Your task to perform on an android device: check google app version Image 0: 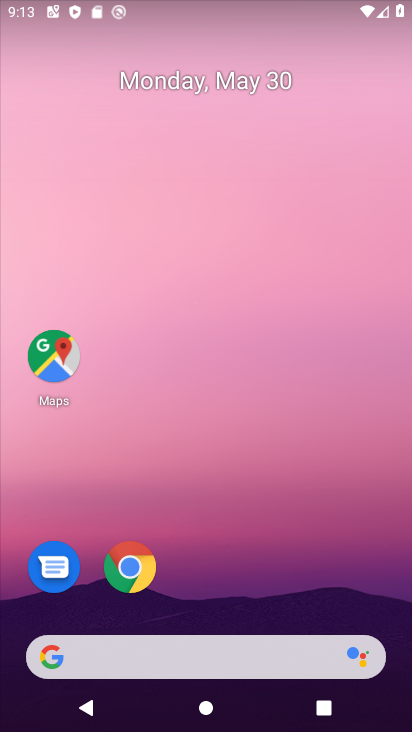
Step 0: click (147, 654)
Your task to perform on an android device: check google app version Image 1: 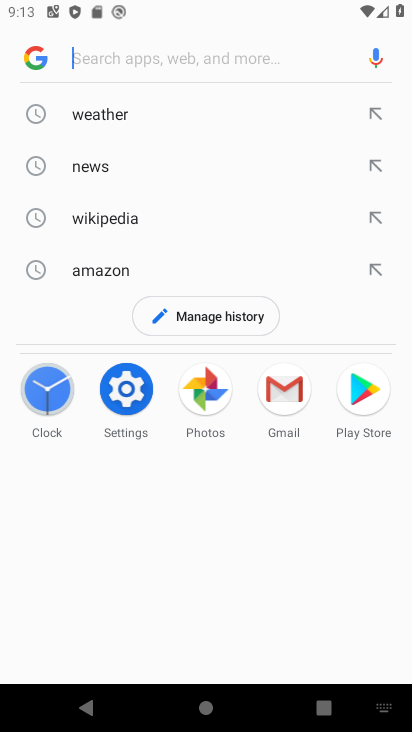
Step 1: click (45, 43)
Your task to perform on an android device: check google app version Image 2: 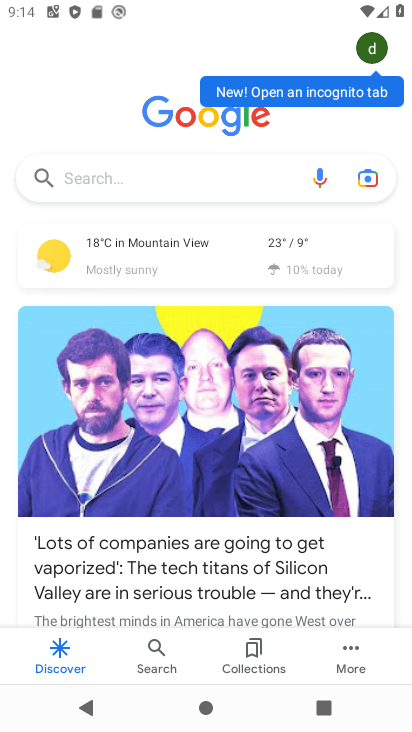
Step 2: click (369, 664)
Your task to perform on an android device: check google app version Image 3: 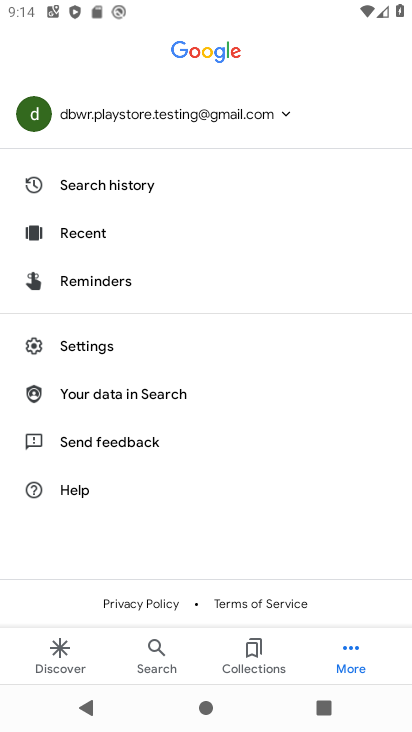
Step 3: click (92, 336)
Your task to perform on an android device: check google app version Image 4: 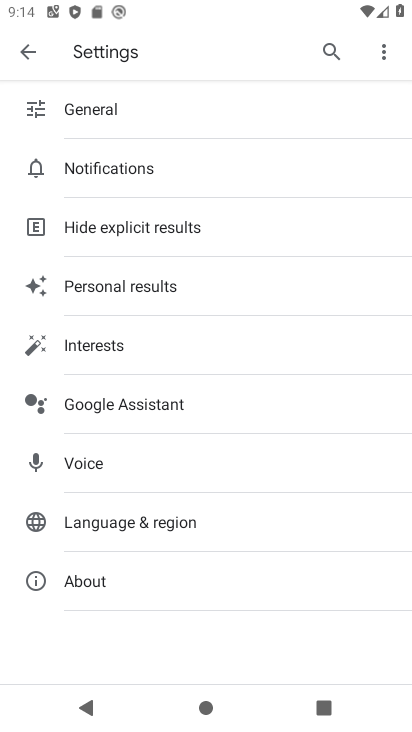
Step 4: click (75, 573)
Your task to perform on an android device: check google app version Image 5: 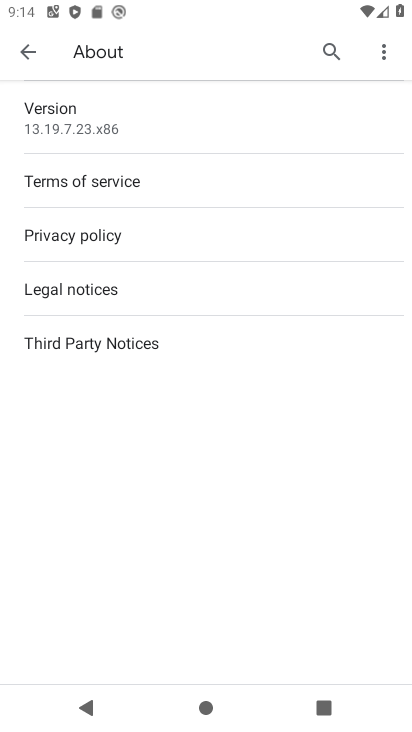
Step 5: task complete